Your task to perform on an android device: toggle improve location accuracy Image 0: 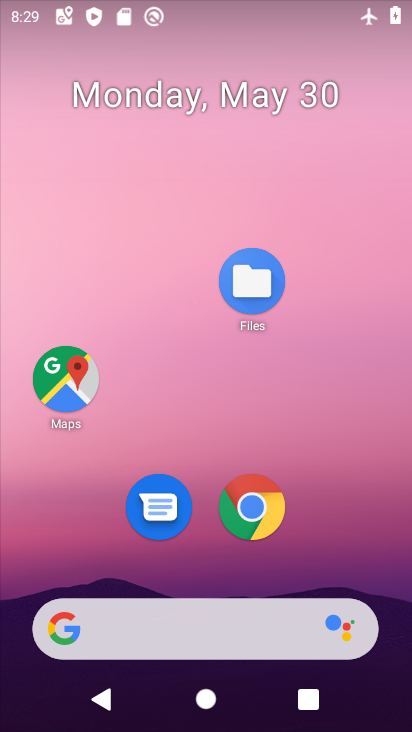
Step 0: drag from (201, 583) to (213, 38)
Your task to perform on an android device: toggle improve location accuracy Image 1: 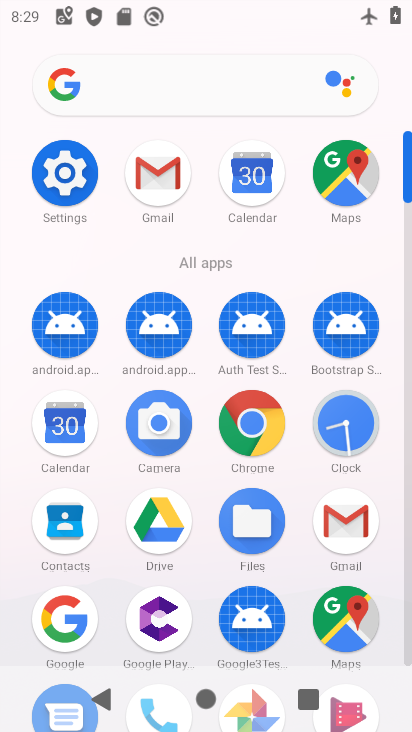
Step 1: click (64, 187)
Your task to perform on an android device: toggle improve location accuracy Image 2: 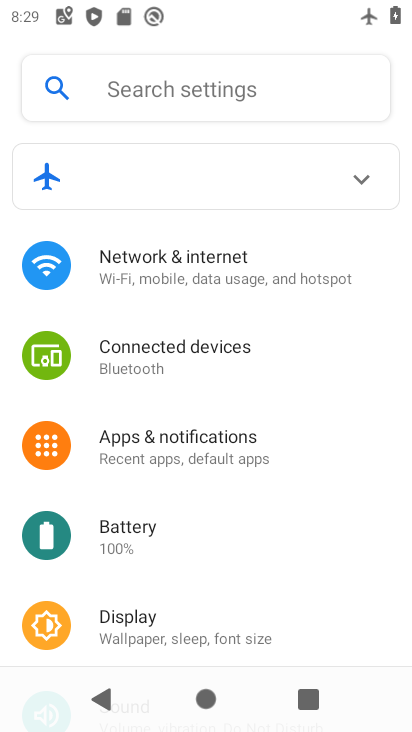
Step 2: drag from (196, 576) to (226, 317)
Your task to perform on an android device: toggle improve location accuracy Image 3: 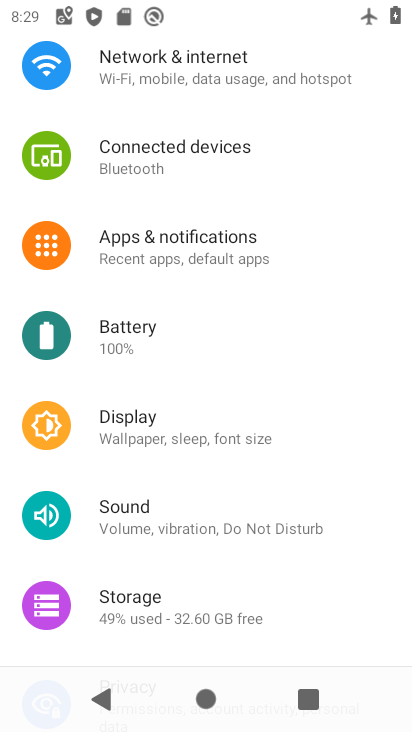
Step 3: drag from (196, 575) to (223, 407)
Your task to perform on an android device: toggle improve location accuracy Image 4: 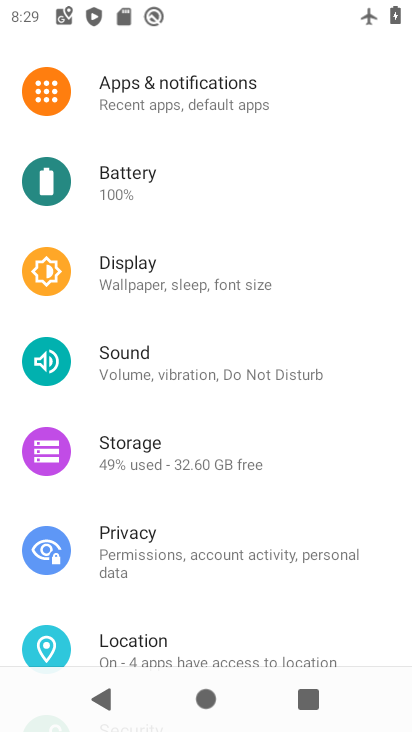
Step 4: drag from (200, 517) to (219, 303)
Your task to perform on an android device: toggle improve location accuracy Image 5: 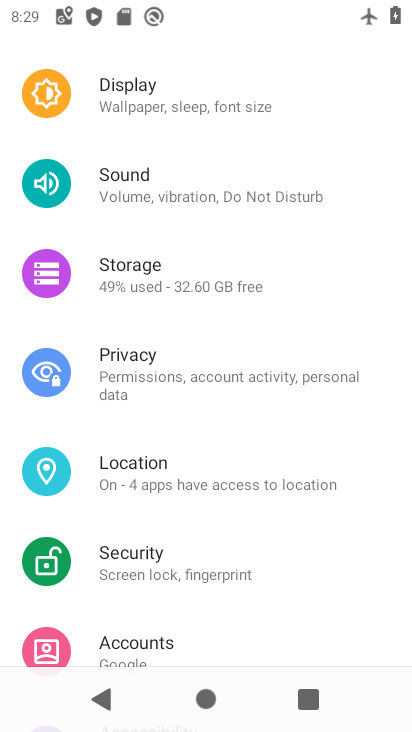
Step 5: click (135, 489)
Your task to perform on an android device: toggle improve location accuracy Image 6: 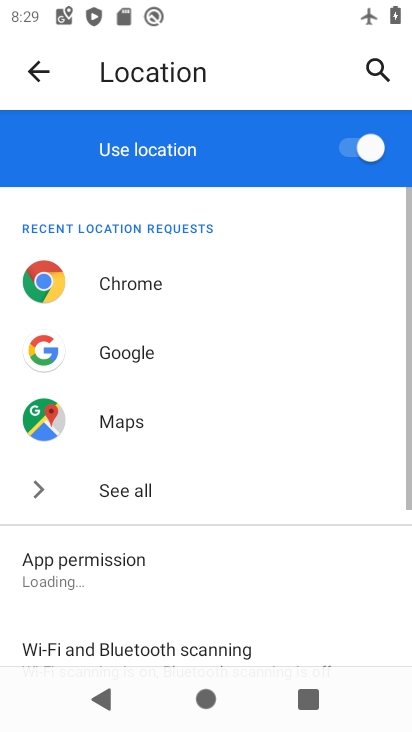
Step 6: drag from (155, 622) to (193, 305)
Your task to perform on an android device: toggle improve location accuracy Image 7: 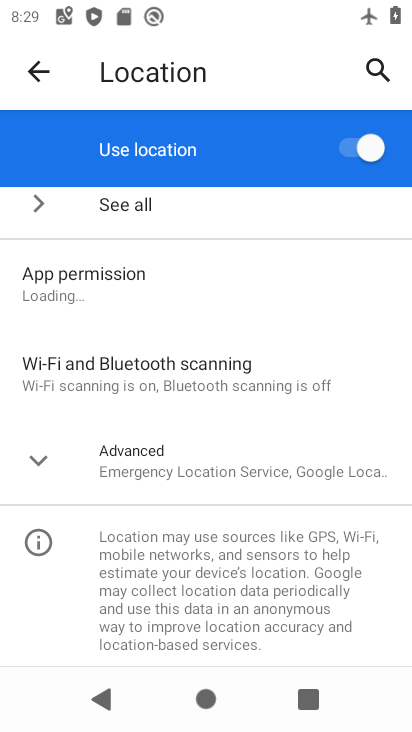
Step 7: click (145, 461)
Your task to perform on an android device: toggle improve location accuracy Image 8: 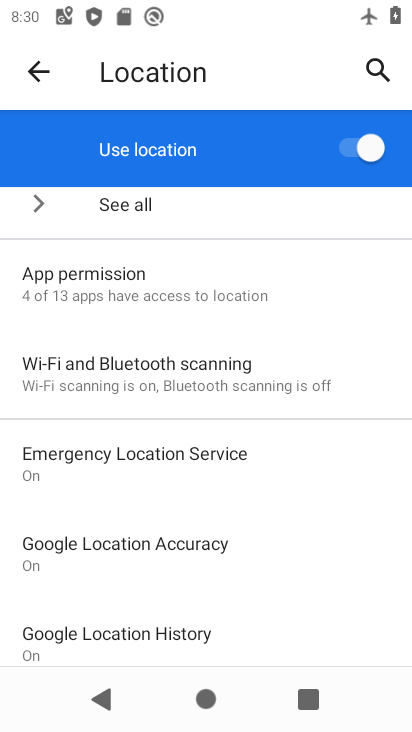
Step 8: click (190, 555)
Your task to perform on an android device: toggle improve location accuracy Image 9: 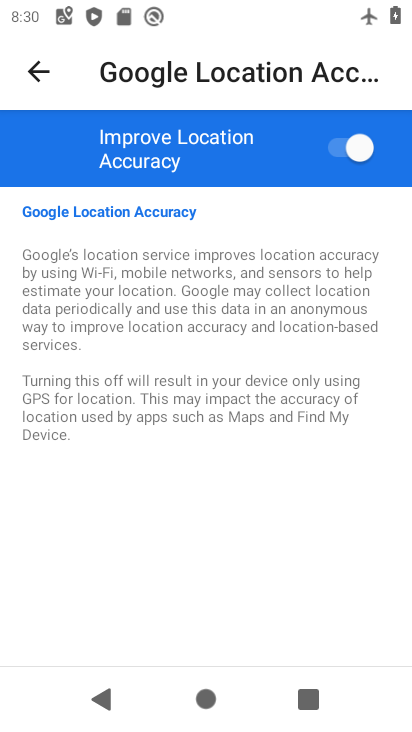
Step 9: click (338, 149)
Your task to perform on an android device: toggle improve location accuracy Image 10: 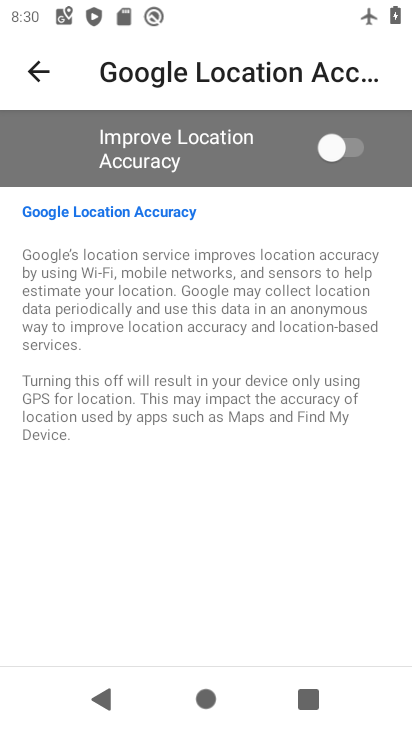
Step 10: task complete